Your task to perform on an android device: turn on showing notifications on the lock screen Image 0: 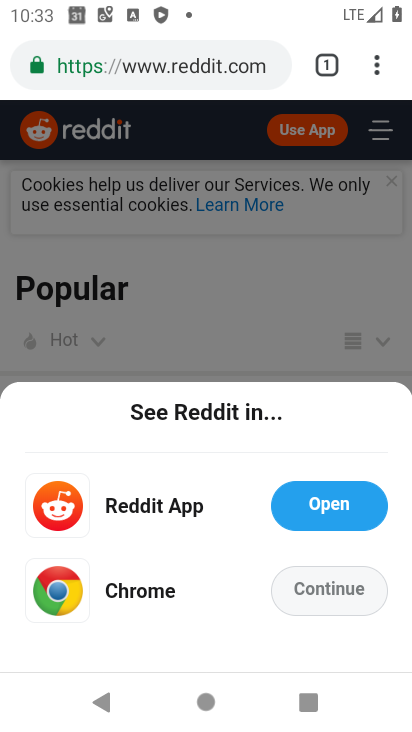
Step 0: press home button
Your task to perform on an android device: turn on showing notifications on the lock screen Image 1: 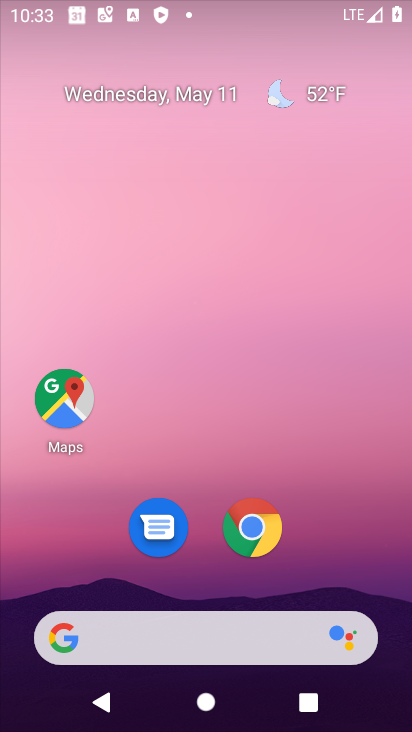
Step 1: drag from (352, 524) to (410, 84)
Your task to perform on an android device: turn on showing notifications on the lock screen Image 2: 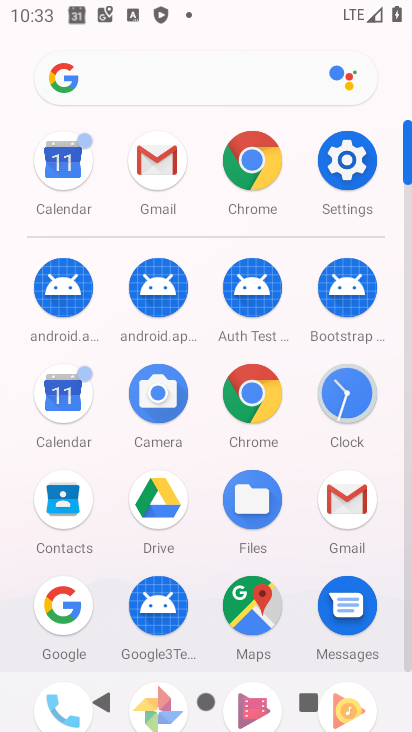
Step 2: click (363, 159)
Your task to perform on an android device: turn on showing notifications on the lock screen Image 3: 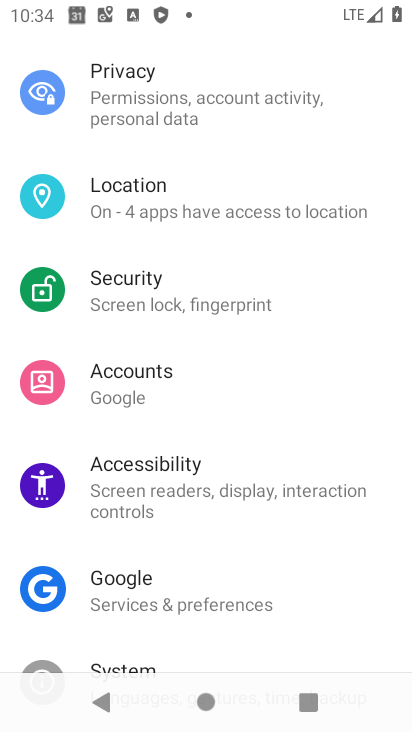
Step 3: drag from (207, 580) to (251, 246)
Your task to perform on an android device: turn on showing notifications on the lock screen Image 4: 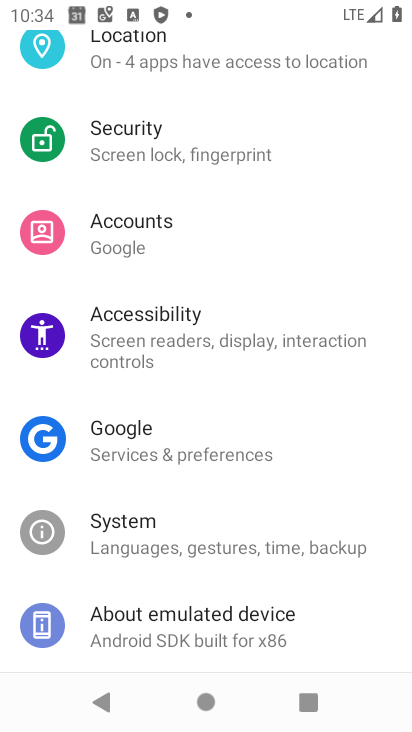
Step 4: drag from (272, 119) to (267, 571)
Your task to perform on an android device: turn on showing notifications on the lock screen Image 5: 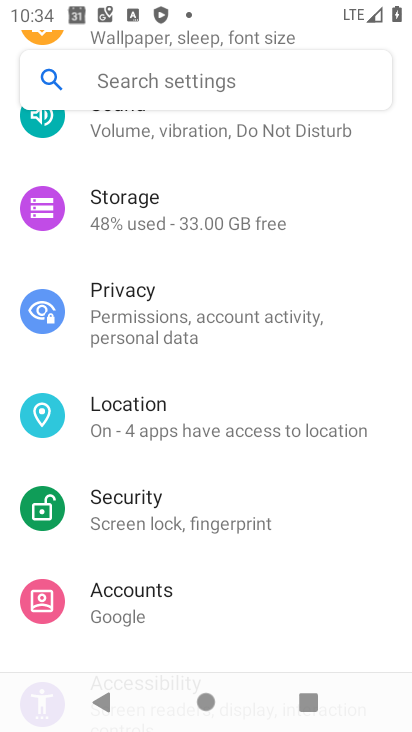
Step 5: drag from (274, 202) to (297, 551)
Your task to perform on an android device: turn on showing notifications on the lock screen Image 6: 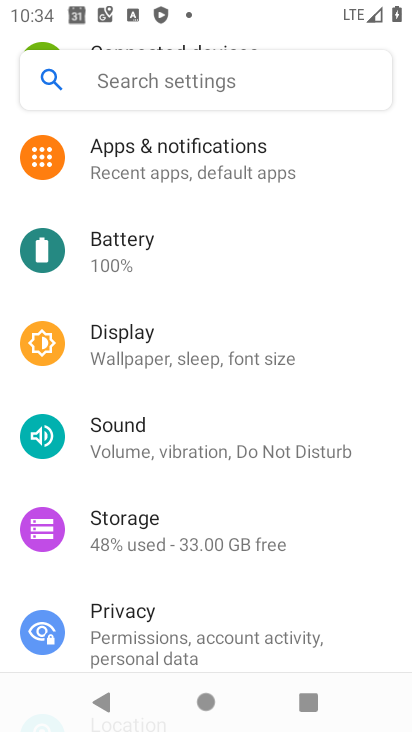
Step 6: click (236, 157)
Your task to perform on an android device: turn on showing notifications on the lock screen Image 7: 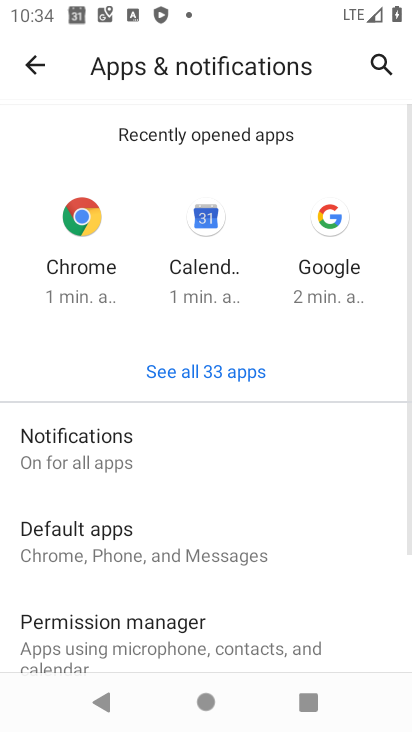
Step 7: click (74, 459)
Your task to perform on an android device: turn on showing notifications on the lock screen Image 8: 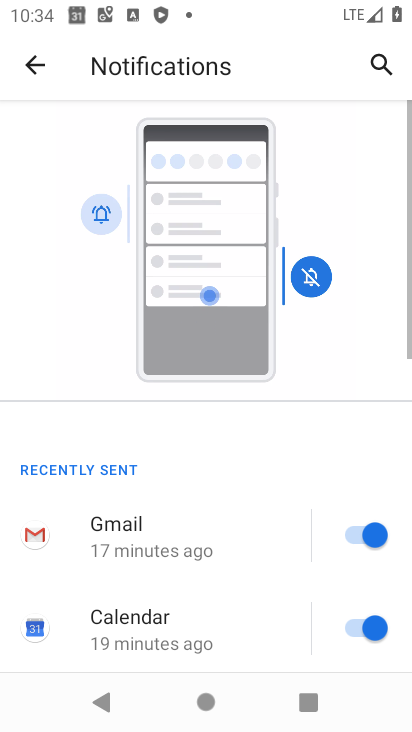
Step 8: drag from (202, 574) to (205, 139)
Your task to perform on an android device: turn on showing notifications on the lock screen Image 9: 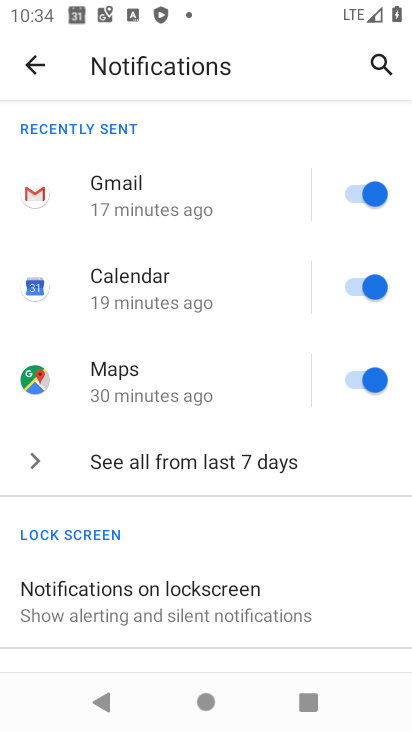
Step 9: click (181, 590)
Your task to perform on an android device: turn on showing notifications on the lock screen Image 10: 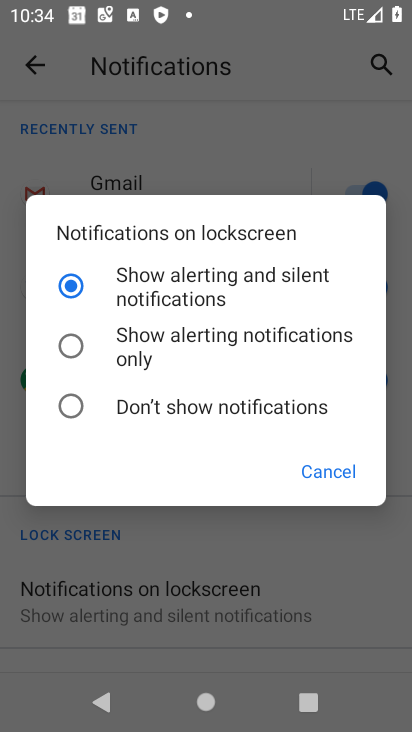
Step 10: click (79, 341)
Your task to perform on an android device: turn on showing notifications on the lock screen Image 11: 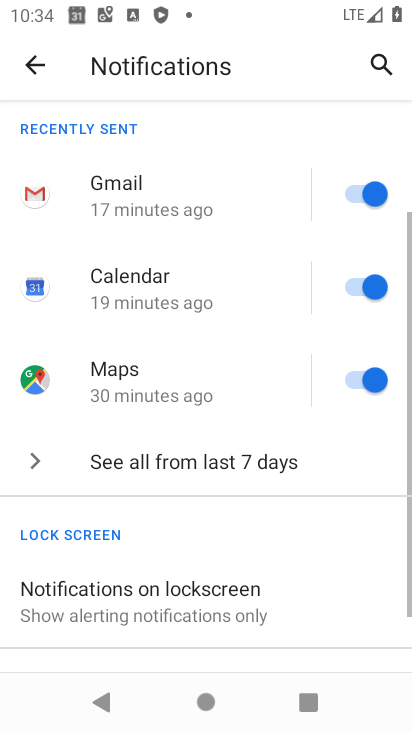
Step 11: task complete